Your task to perform on an android device: Search for Italian restaurants on Maps Image 0: 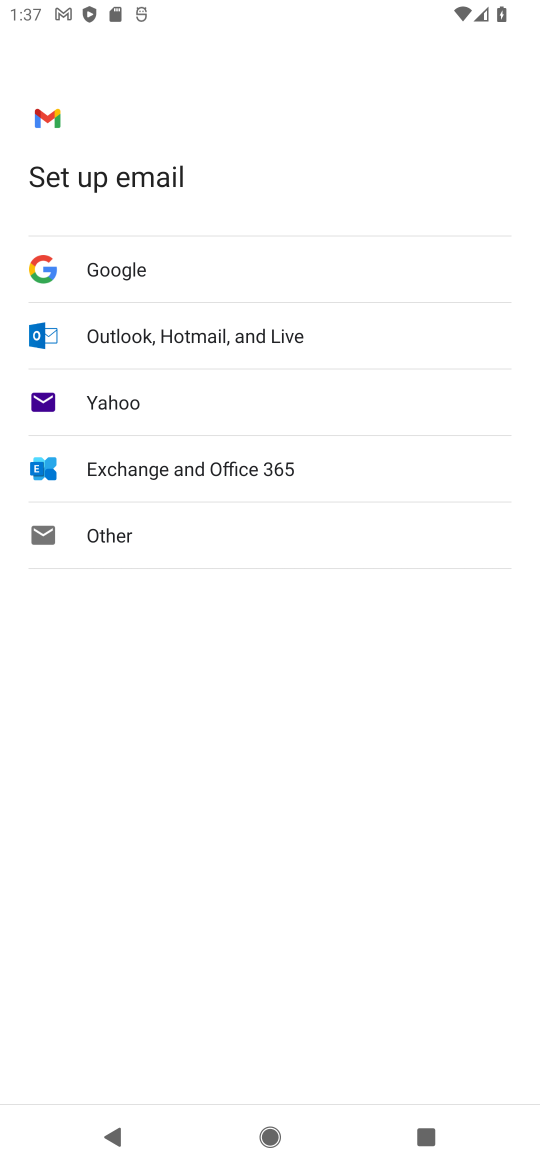
Step 0: press home button
Your task to perform on an android device: Search for Italian restaurants on Maps Image 1: 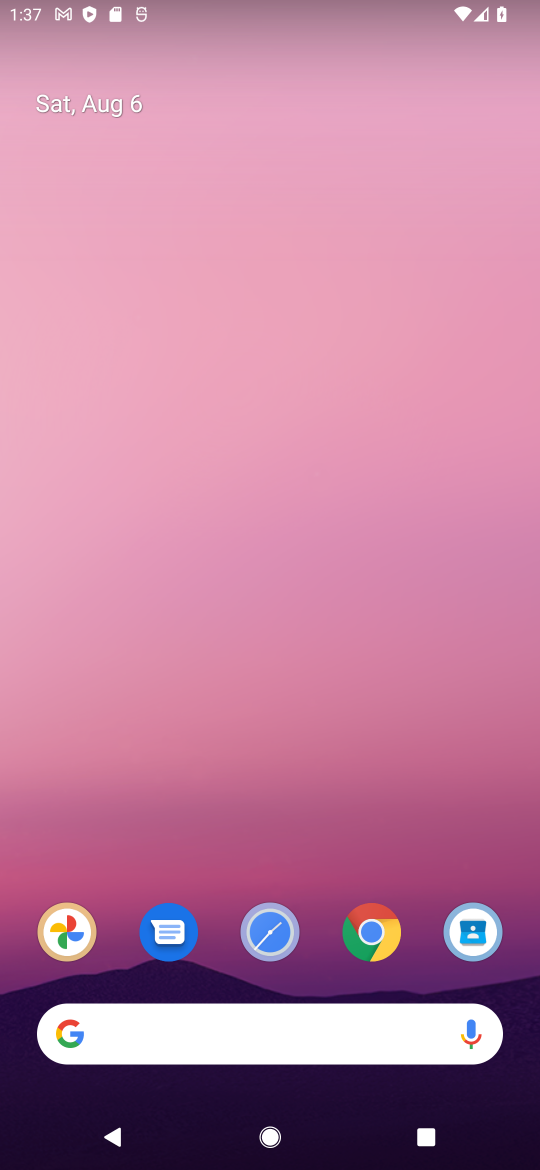
Step 1: drag from (308, 854) to (246, 222)
Your task to perform on an android device: Search for Italian restaurants on Maps Image 2: 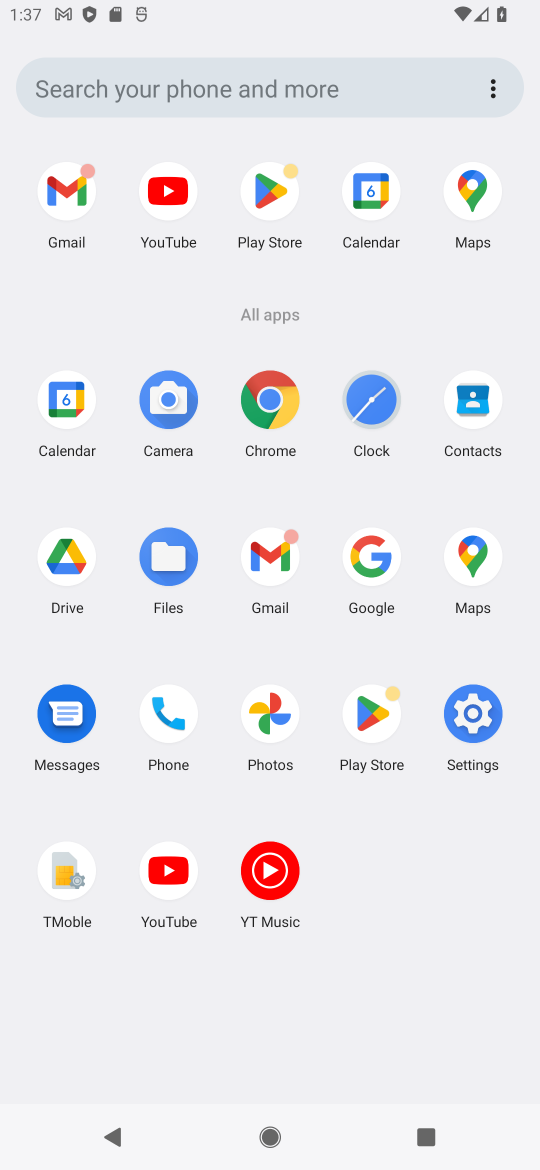
Step 2: click (482, 550)
Your task to perform on an android device: Search for Italian restaurants on Maps Image 3: 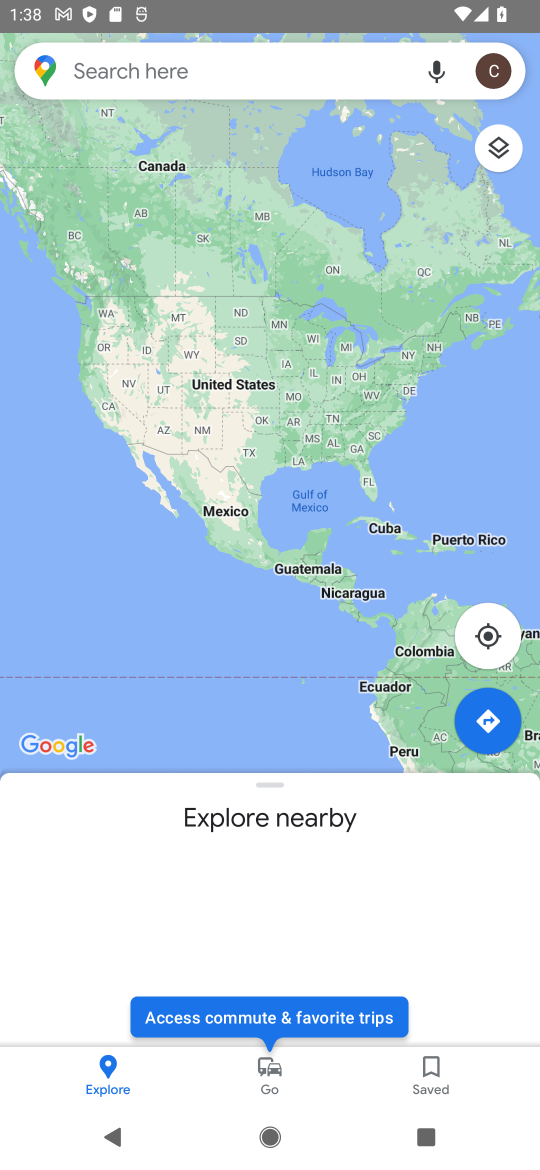
Step 3: type " Italian restaurants"
Your task to perform on an android device: Search for Italian restaurants on Maps Image 4: 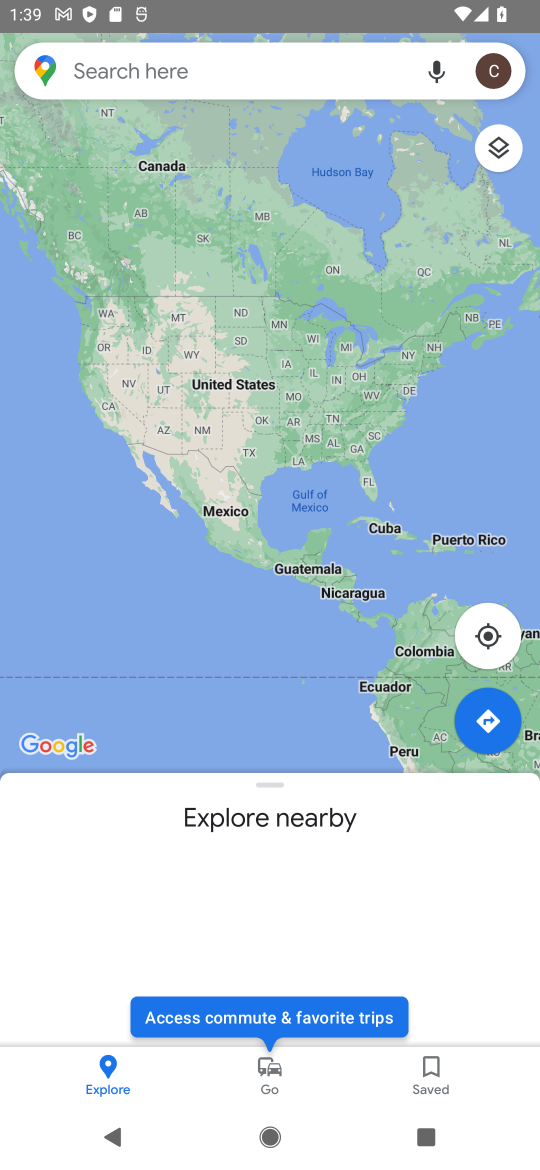
Step 4: click (206, 71)
Your task to perform on an android device: Search for Italian restaurants on Maps Image 5: 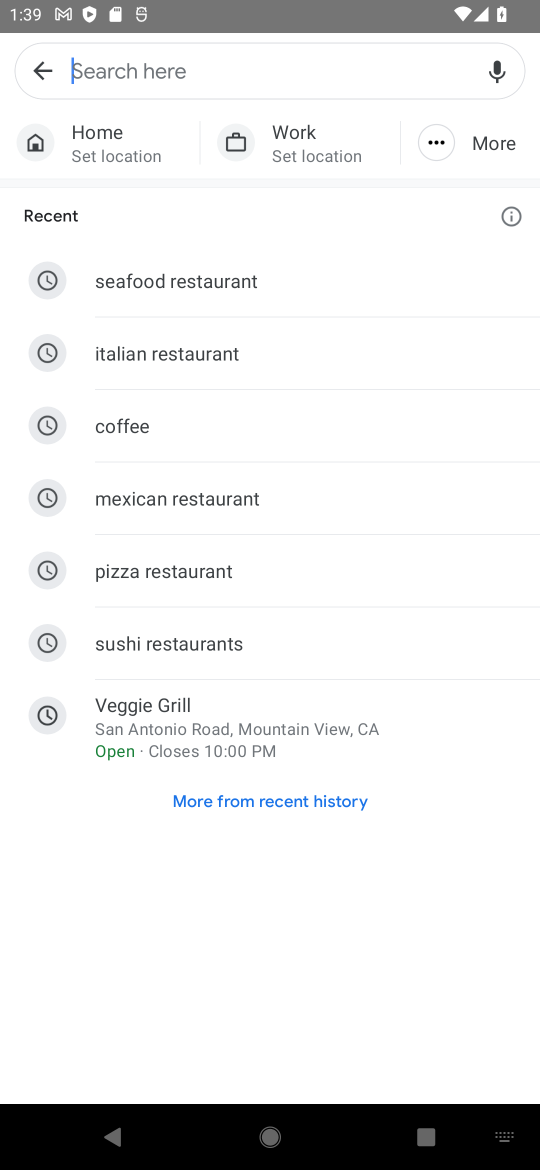
Step 5: type " Italian restaurants"
Your task to perform on an android device: Search for Italian restaurants on Maps Image 6: 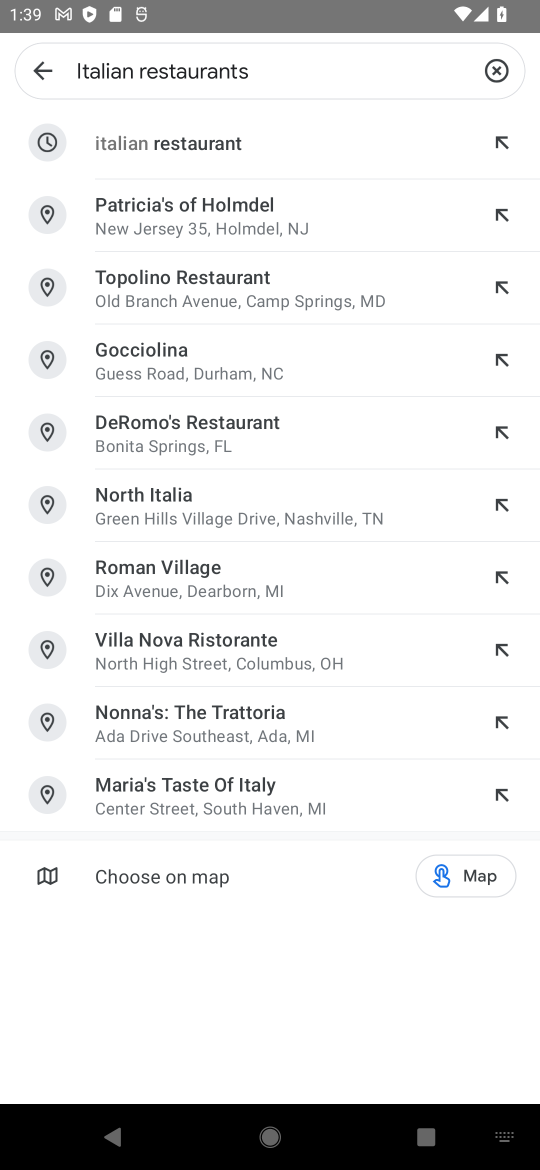
Step 6: click (161, 139)
Your task to perform on an android device: Search for Italian restaurants on Maps Image 7: 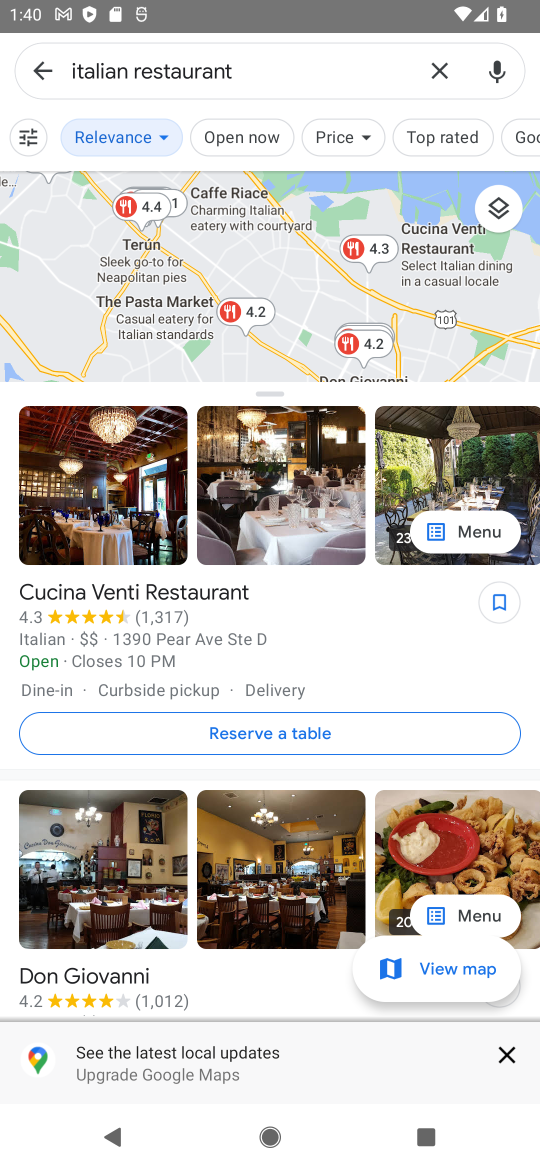
Step 7: task complete